Your task to perform on an android device: clear all cookies in the chrome app Image 0: 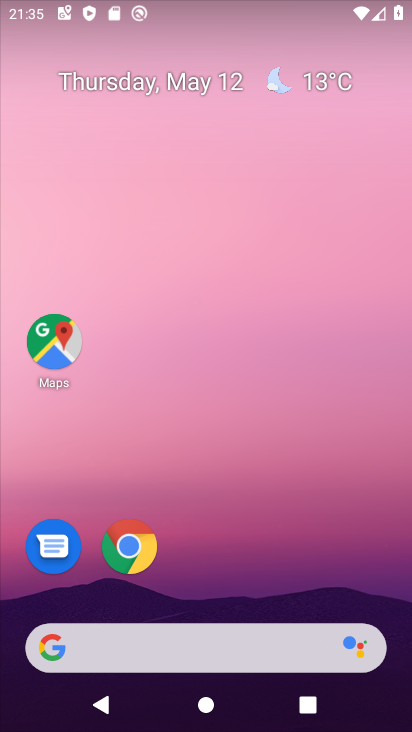
Step 0: click (118, 551)
Your task to perform on an android device: clear all cookies in the chrome app Image 1: 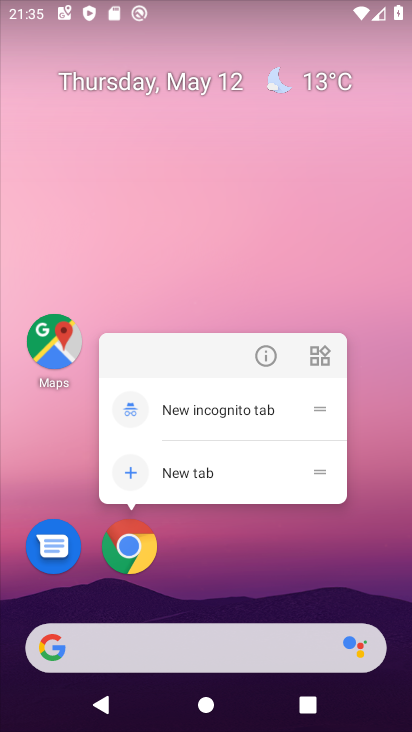
Step 1: click (118, 551)
Your task to perform on an android device: clear all cookies in the chrome app Image 2: 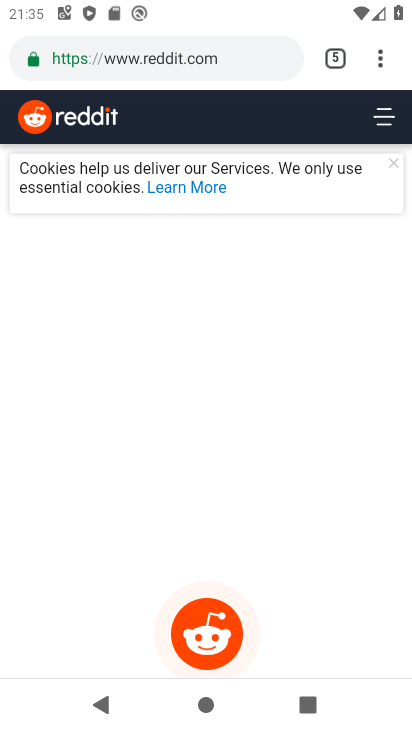
Step 2: drag from (380, 111) to (56, 234)
Your task to perform on an android device: clear all cookies in the chrome app Image 3: 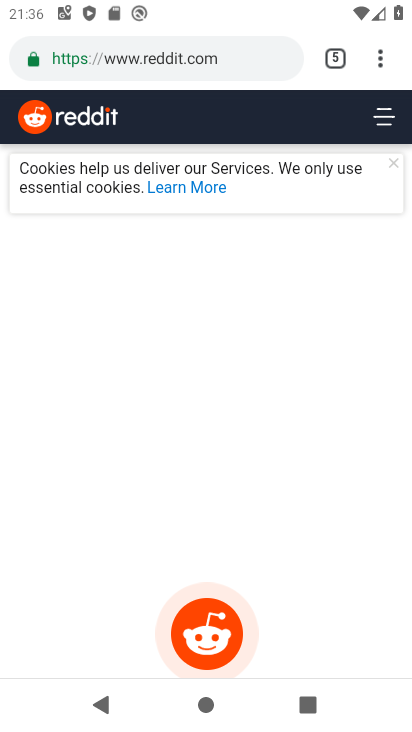
Step 3: drag from (376, 92) to (267, 0)
Your task to perform on an android device: clear all cookies in the chrome app Image 4: 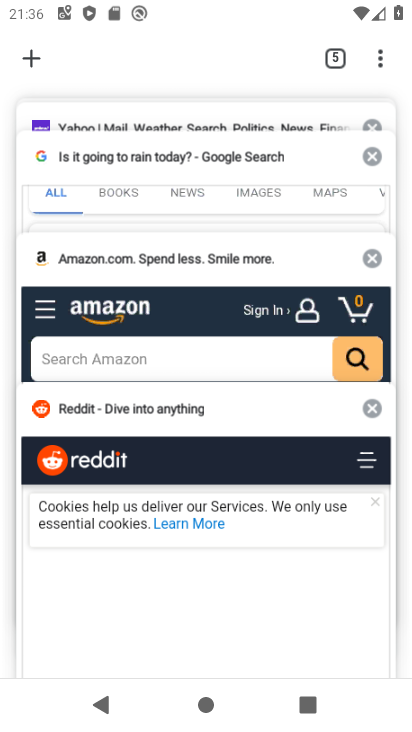
Step 4: click (375, 57)
Your task to perform on an android device: clear all cookies in the chrome app Image 5: 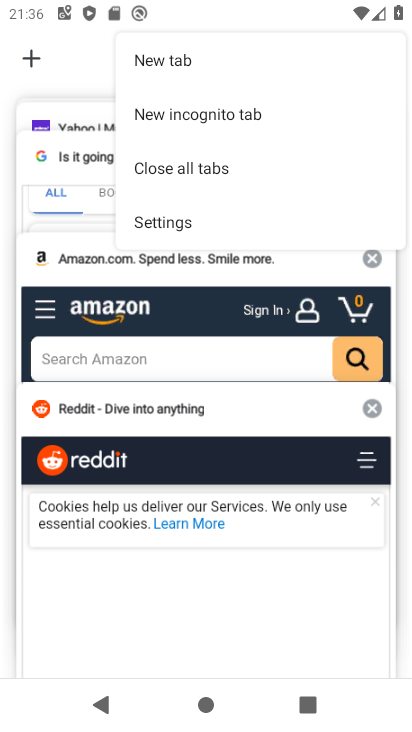
Step 5: click (154, 560)
Your task to perform on an android device: clear all cookies in the chrome app Image 6: 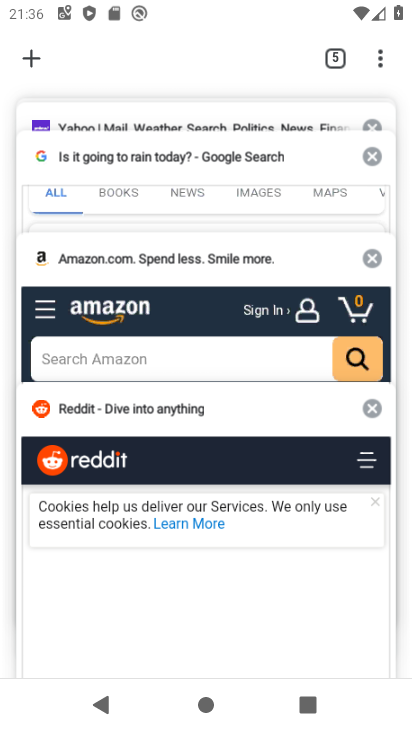
Step 6: click (114, 593)
Your task to perform on an android device: clear all cookies in the chrome app Image 7: 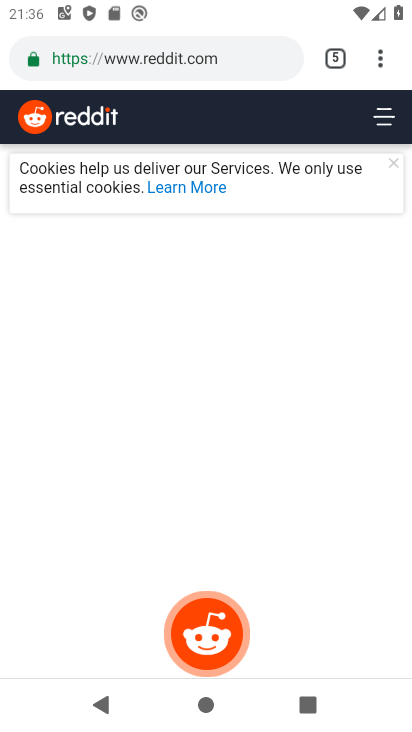
Step 7: drag from (377, 61) to (204, 580)
Your task to perform on an android device: clear all cookies in the chrome app Image 8: 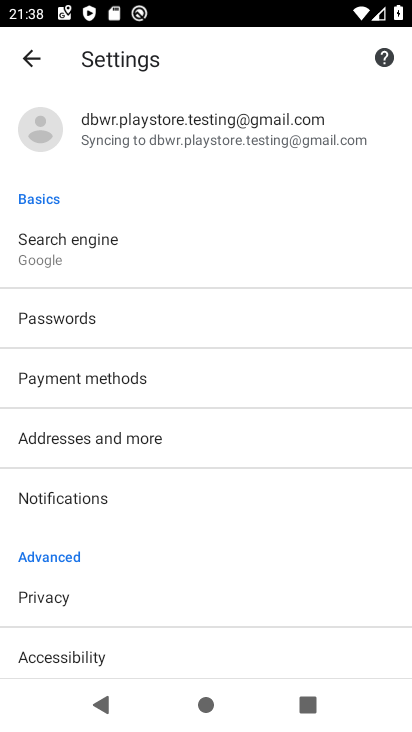
Step 8: drag from (246, 509) to (281, 112)
Your task to perform on an android device: clear all cookies in the chrome app Image 9: 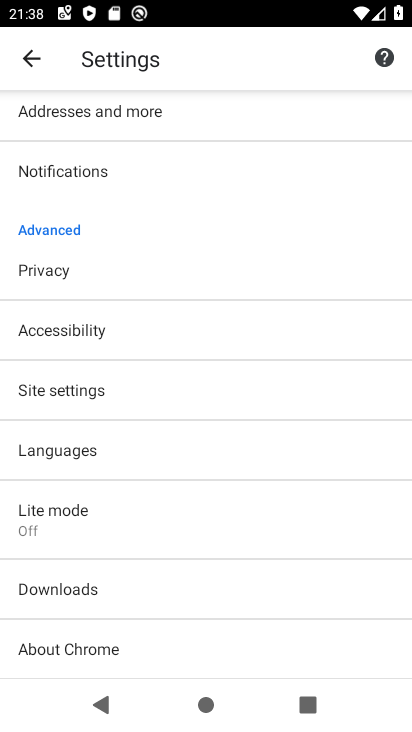
Step 9: drag from (166, 440) to (199, 192)
Your task to perform on an android device: clear all cookies in the chrome app Image 10: 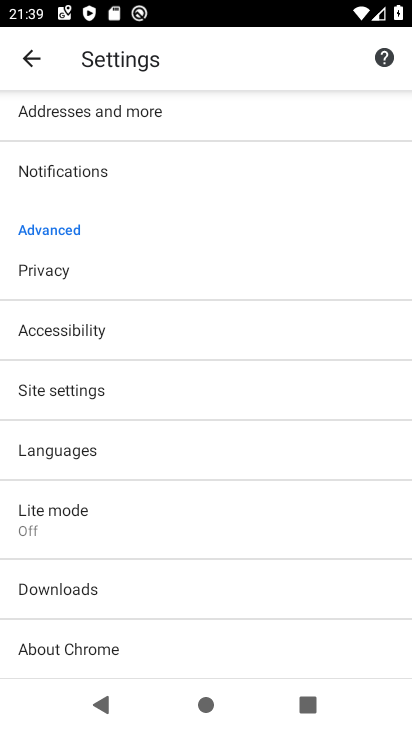
Step 10: drag from (283, 297) to (340, 614)
Your task to perform on an android device: clear all cookies in the chrome app Image 11: 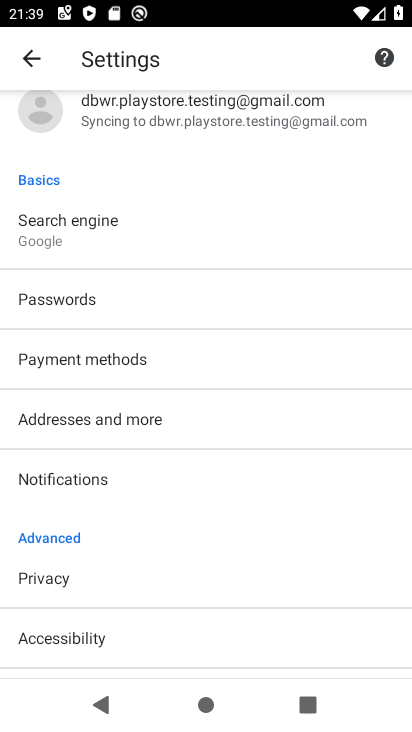
Step 11: drag from (44, 520) to (145, 113)
Your task to perform on an android device: clear all cookies in the chrome app Image 12: 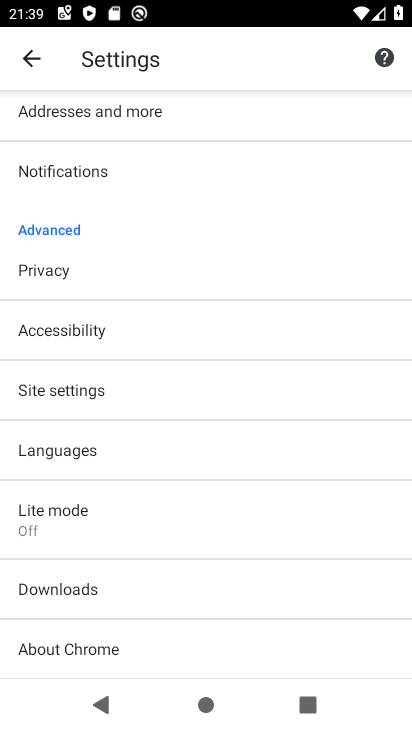
Step 12: drag from (241, 626) to (248, 200)
Your task to perform on an android device: clear all cookies in the chrome app Image 13: 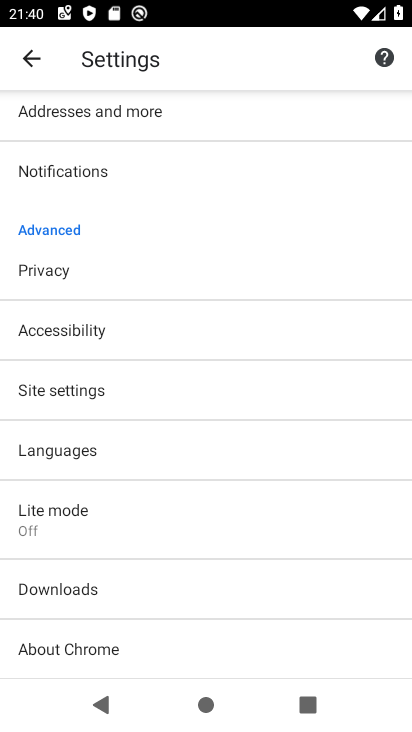
Step 13: drag from (120, 556) to (150, 310)
Your task to perform on an android device: clear all cookies in the chrome app Image 14: 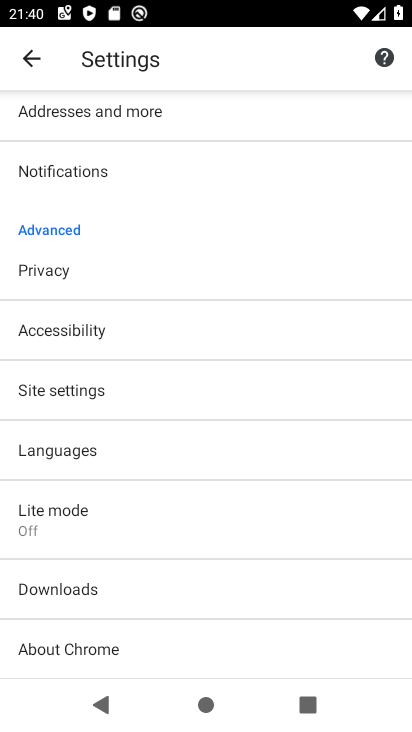
Step 14: click (131, 276)
Your task to perform on an android device: clear all cookies in the chrome app Image 15: 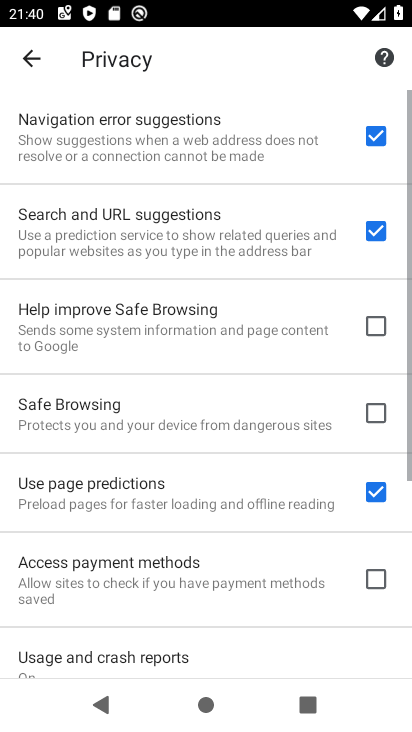
Step 15: drag from (218, 608) to (214, 277)
Your task to perform on an android device: clear all cookies in the chrome app Image 16: 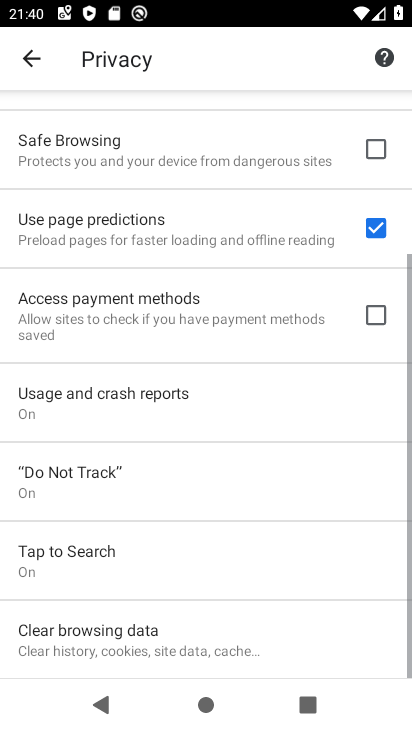
Step 16: drag from (292, 533) to (297, 142)
Your task to perform on an android device: clear all cookies in the chrome app Image 17: 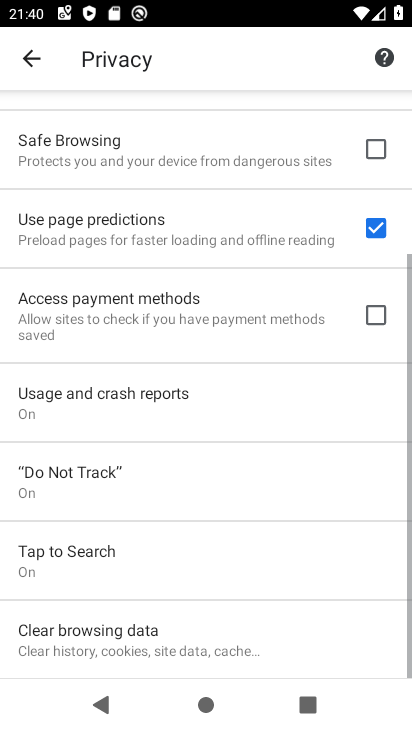
Step 17: click (89, 634)
Your task to perform on an android device: clear all cookies in the chrome app Image 18: 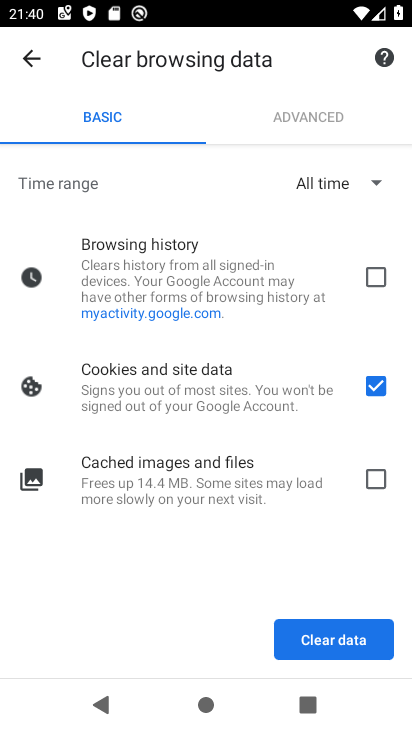
Step 18: click (306, 636)
Your task to perform on an android device: clear all cookies in the chrome app Image 19: 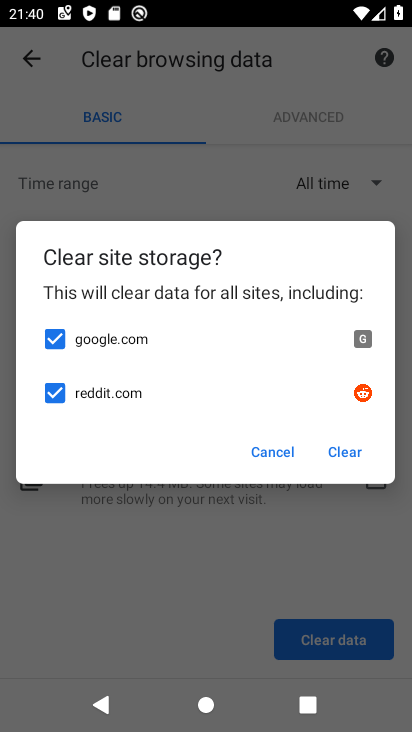
Step 19: click (332, 455)
Your task to perform on an android device: clear all cookies in the chrome app Image 20: 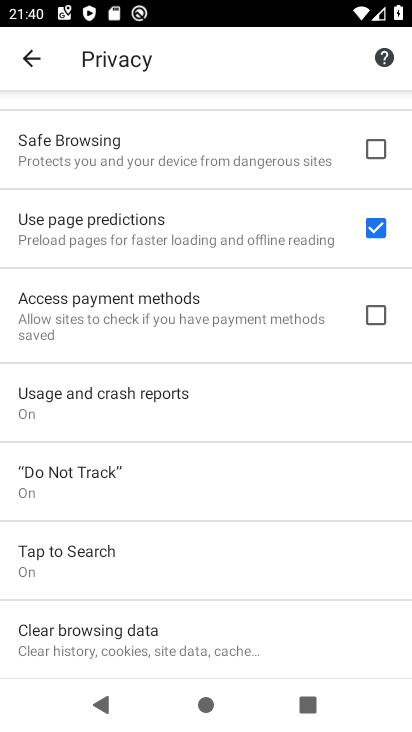
Step 20: task complete